Your task to perform on an android device: Open the calendar app, open the side menu, and click the "Day" option Image 0: 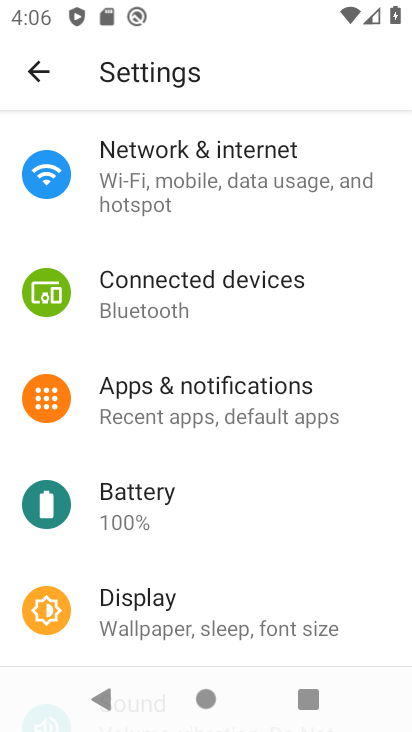
Step 0: press home button
Your task to perform on an android device: Open the calendar app, open the side menu, and click the "Day" option Image 1: 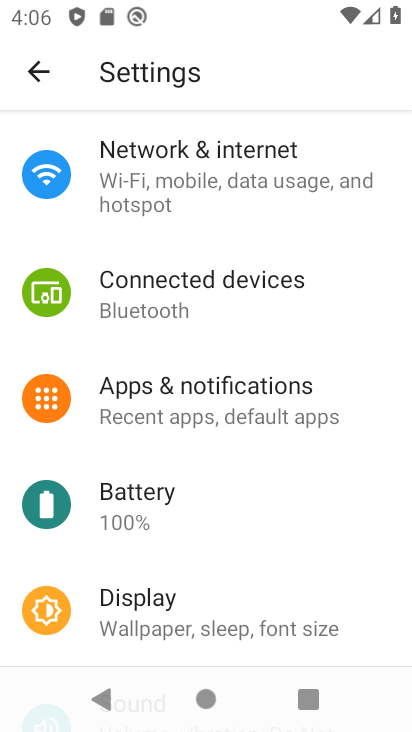
Step 1: press home button
Your task to perform on an android device: Open the calendar app, open the side menu, and click the "Day" option Image 2: 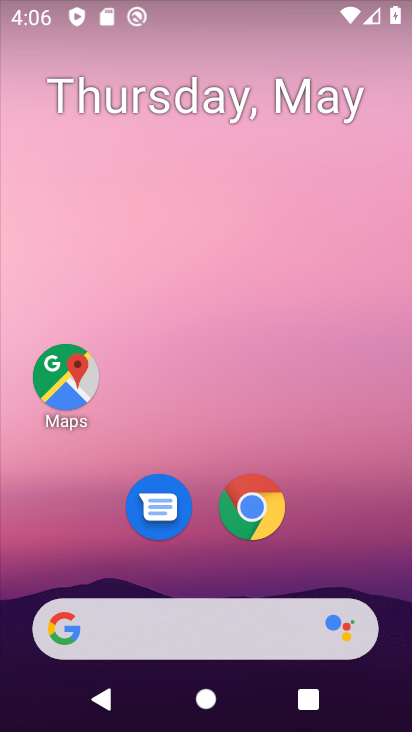
Step 2: drag from (371, 578) to (176, 7)
Your task to perform on an android device: Open the calendar app, open the side menu, and click the "Day" option Image 3: 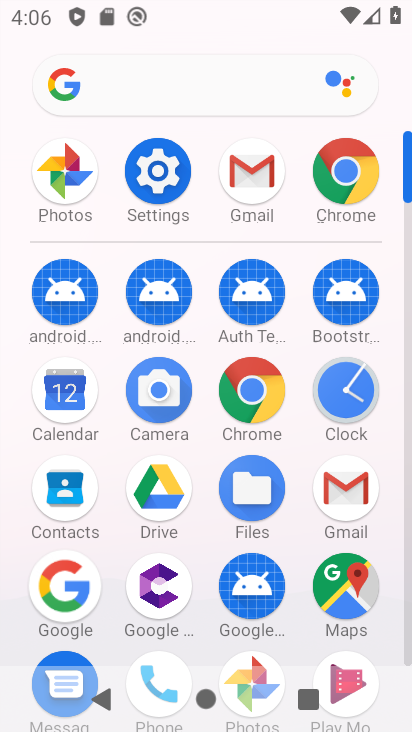
Step 3: click (67, 411)
Your task to perform on an android device: Open the calendar app, open the side menu, and click the "Day" option Image 4: 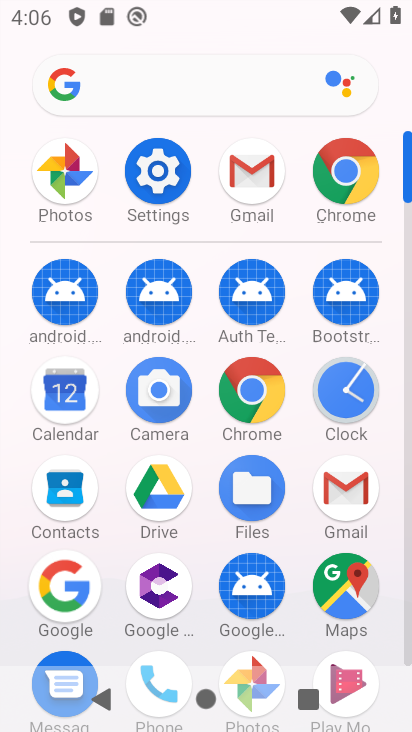
Step 4: click (67, 411)
Your task to perform on an android device: Open the calendar app, open the side menu, and click the "Day" option Image 5: 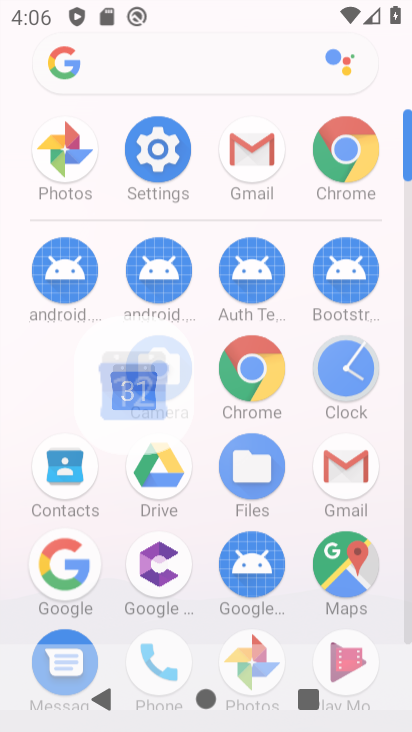
Step 5: click (75, 379)
Your task to perform on an android device: Open the calendar app, open the side menu, and click the "Day" option Image 6: 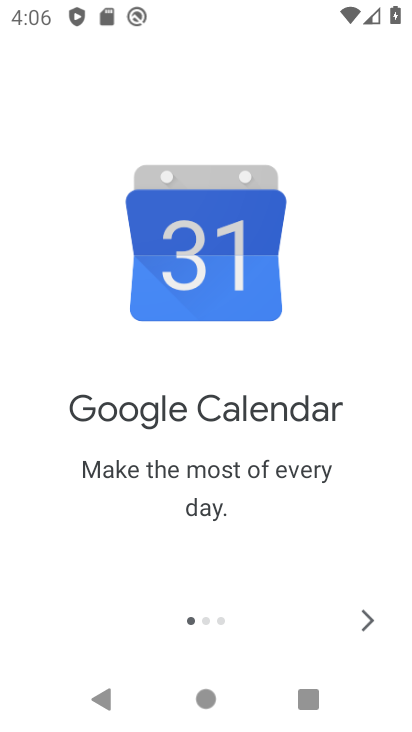
Step 6: click (375, 618)
Your task to perform on an android device: Open the calendar app, open the side menu, and click the "Day" option Image 7: 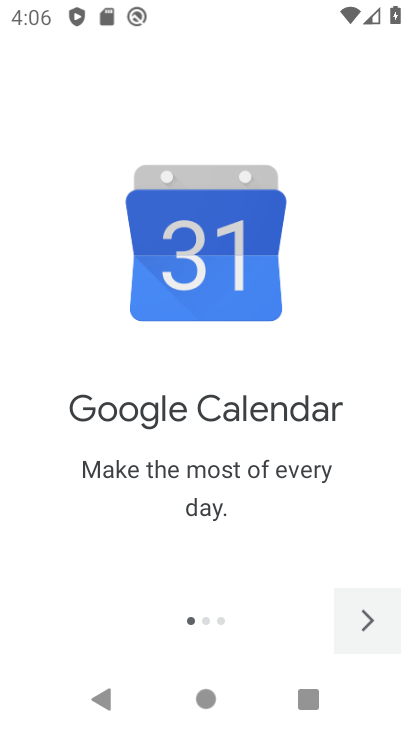
Step 7: click (373, 619)
Your task to perform on an android device: Open the calendar app, open the side menu, and click the "Day" option Image 8: 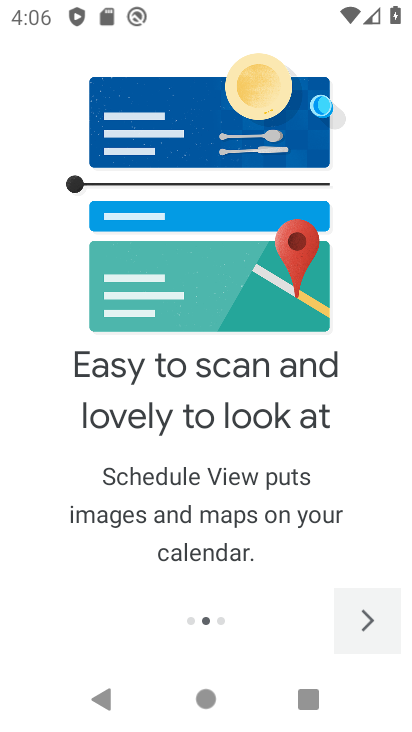
Step 8: click (364, 623)
Your task to perform on an android device: Open the calendar app, open the side menu, and click the "Day" option Image 9: 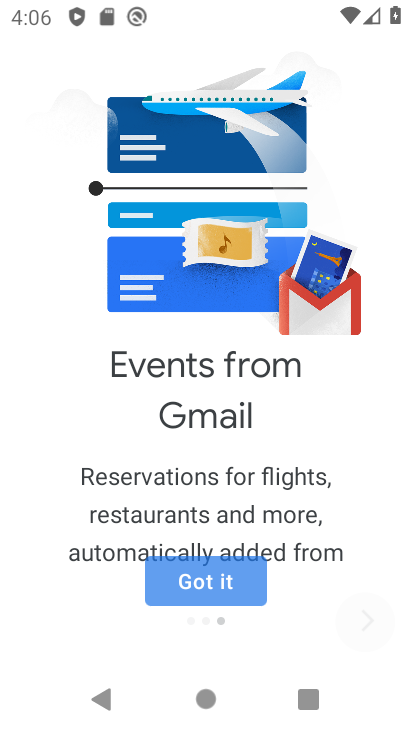
Step 9: click (364, 623)
Your task to perform on an android device: Open the calendar app, open the side menu, and click the "Day" option Image 10: 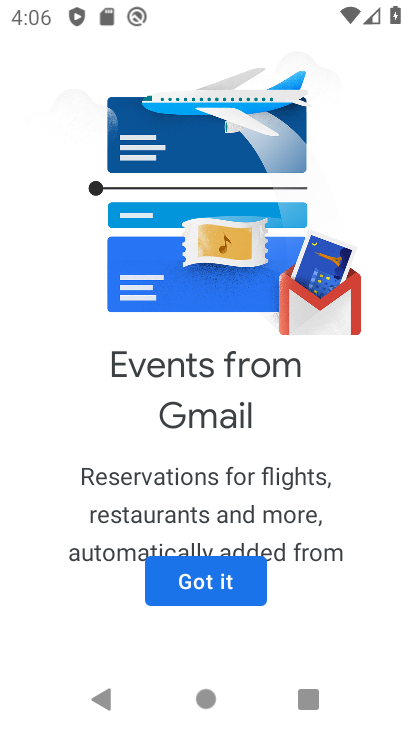
Step 10: click (364, 623)
Your task to perform on an android device: Open the calendar app, open the side menu, and click the "Day" option Image 11: 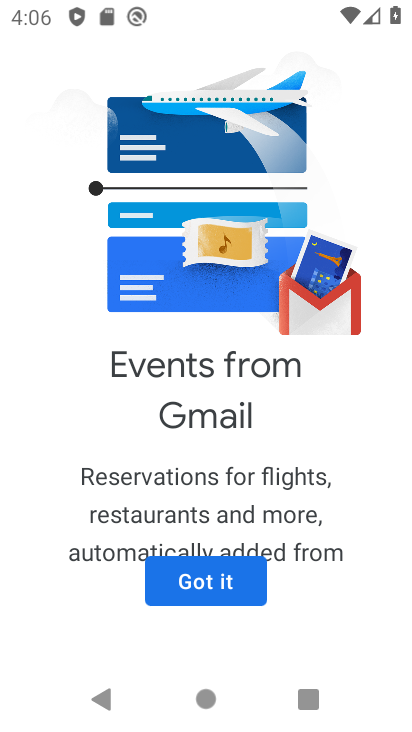
Step 11: click (355, 634)
Your task to perform on an android device: Open the calendar app, open the side menu, and click the "Day" option Image 12: 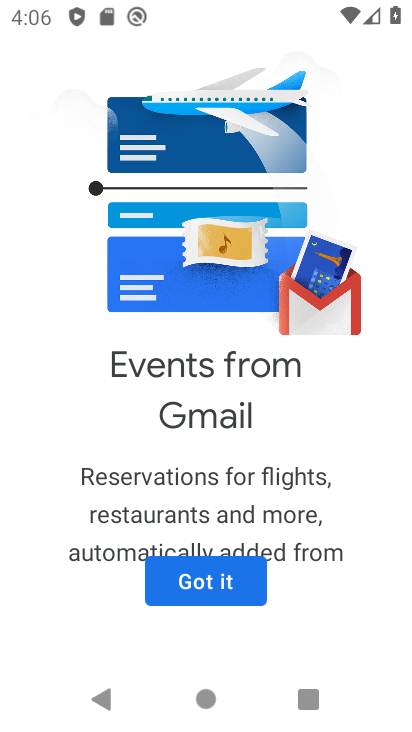
Step 12: click (200, 576)
Your task to perform on an android device: Open the calendar app, open the side menu, and click the "Day" option Image 13: 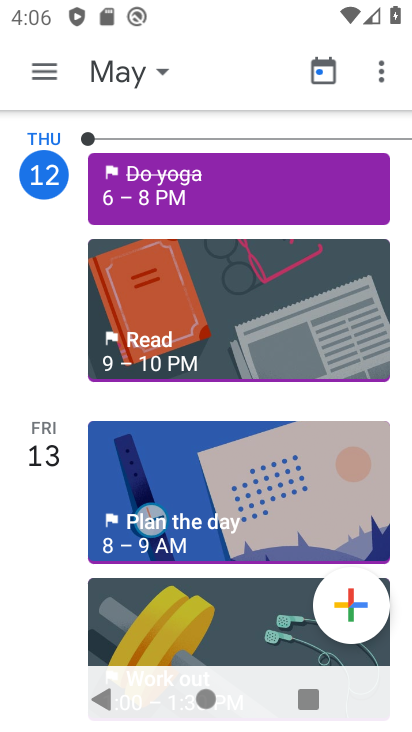
Step 13: click (37, 66)
Your task to perform on an android device: Open the calendar app, open the side menu, and click the "Day" option Image 14: 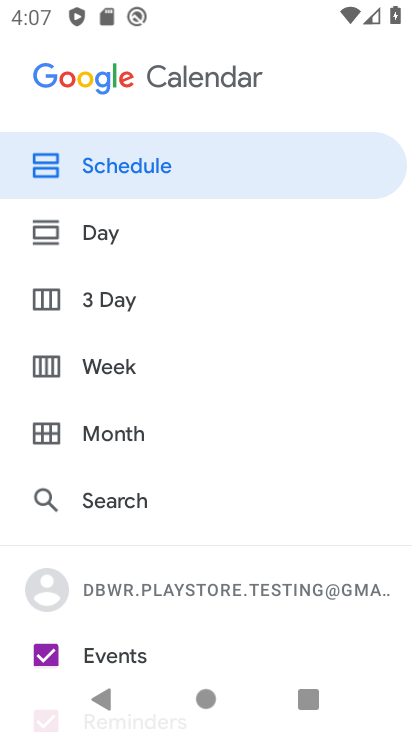
Step 14: click (93, 229)
Your task to perform on an android device: Open the calendar app, open the side menu, and click the "Day" option Image 15: 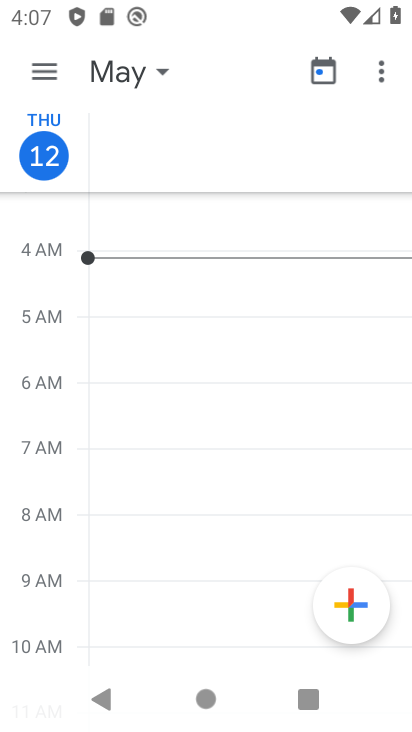
Step 15: task complete